Your task to perform on an android device: delete a single message in the gmail app Image 0: 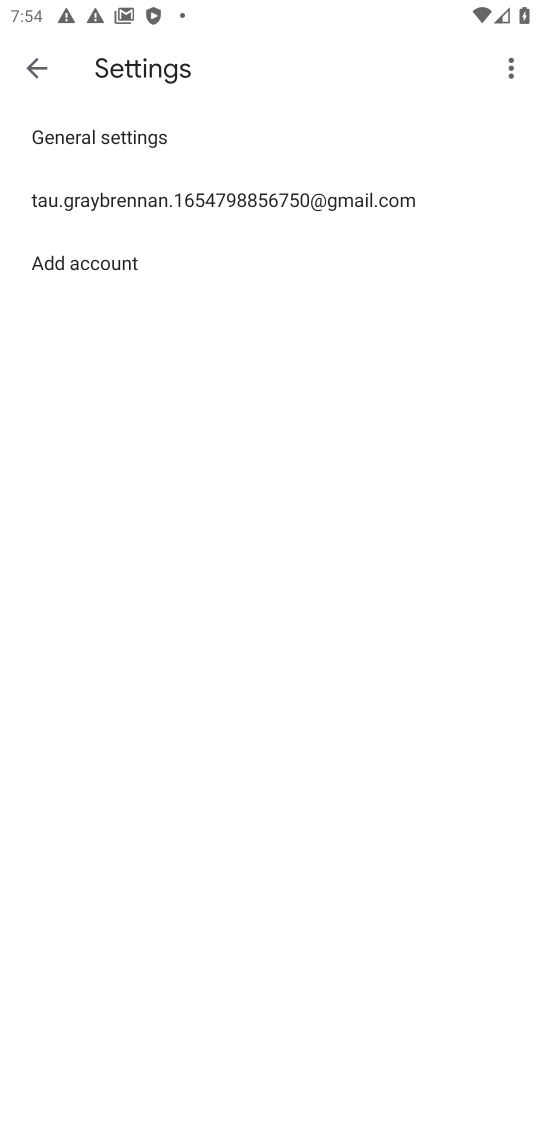
Step 0: click (20, 51)
Your task to perform on an android device: delete a single message in the gmail app Image 1: 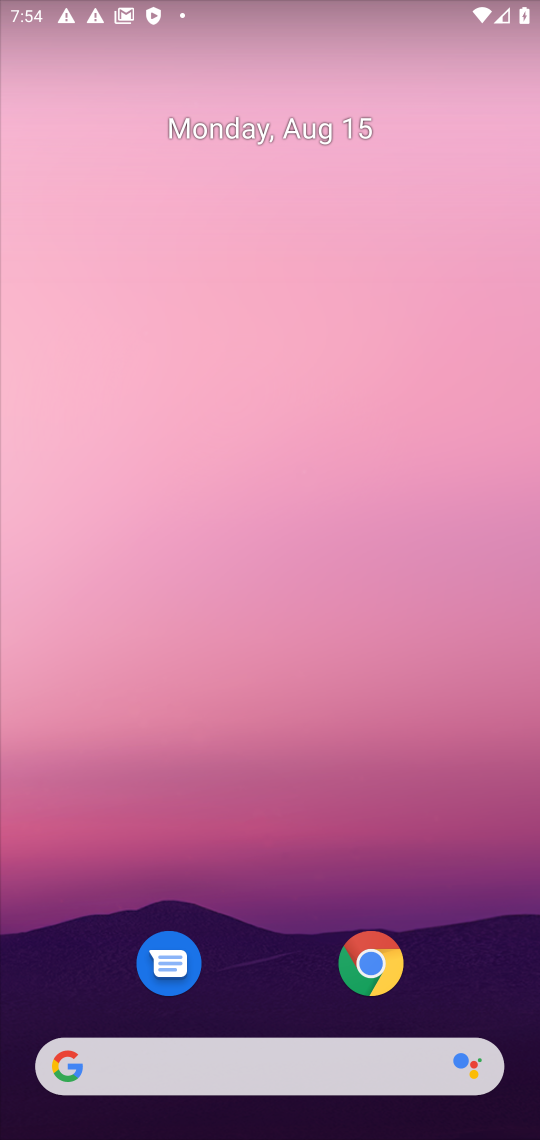
Step 1: drag from (264, 983) to (175, 140)
Your task to perform on an android device: delete a single message in the gmail app Image 2: 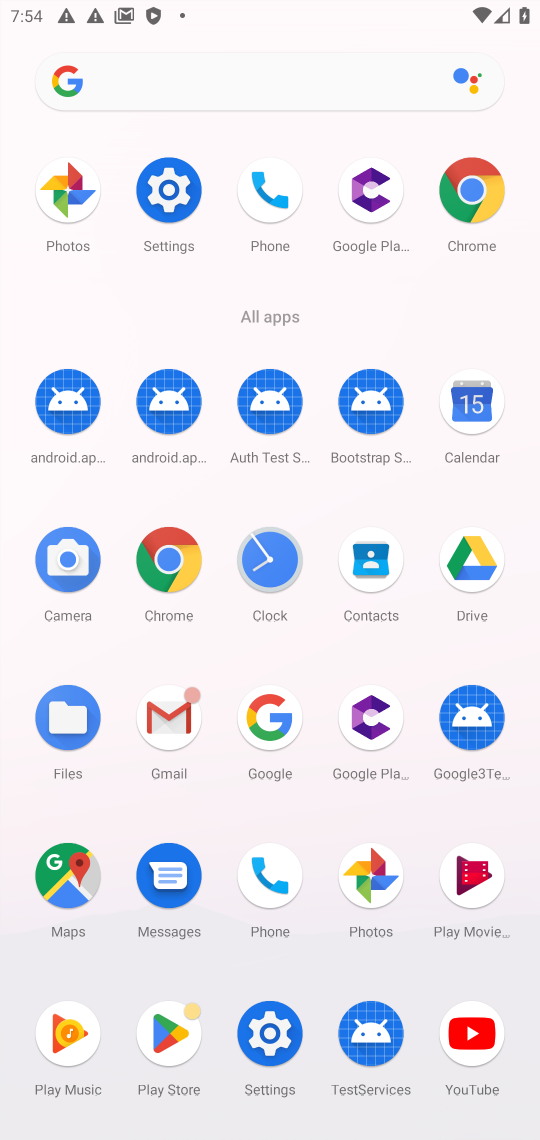
Step 2: click (193, 725)
Your task to perform on an android device: delete a single message in the gmail app Image 3: 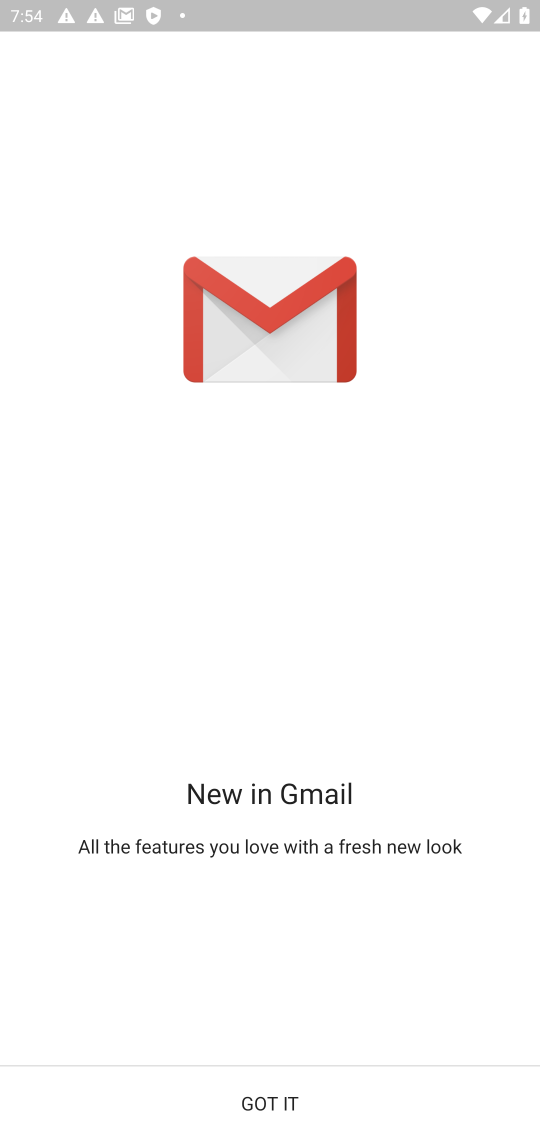
Step 3: click (349, 1086)
Your task to perform on an android device: delete a single message in the gmail app Image 4: 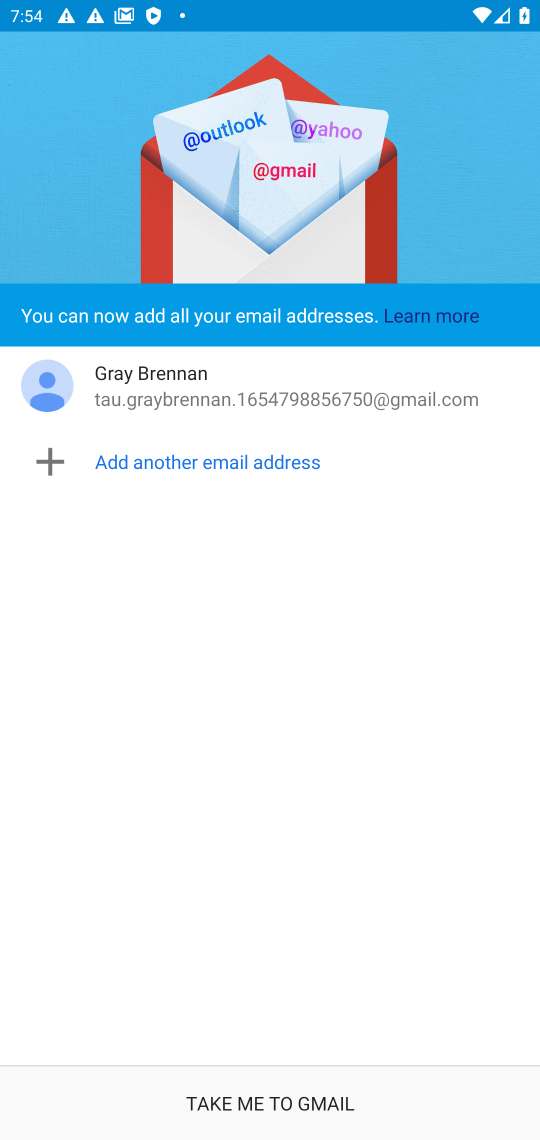
Step 4: click (195, 1103)
Your task to perform on an android device: delete a single message in the gmail app Image 5: 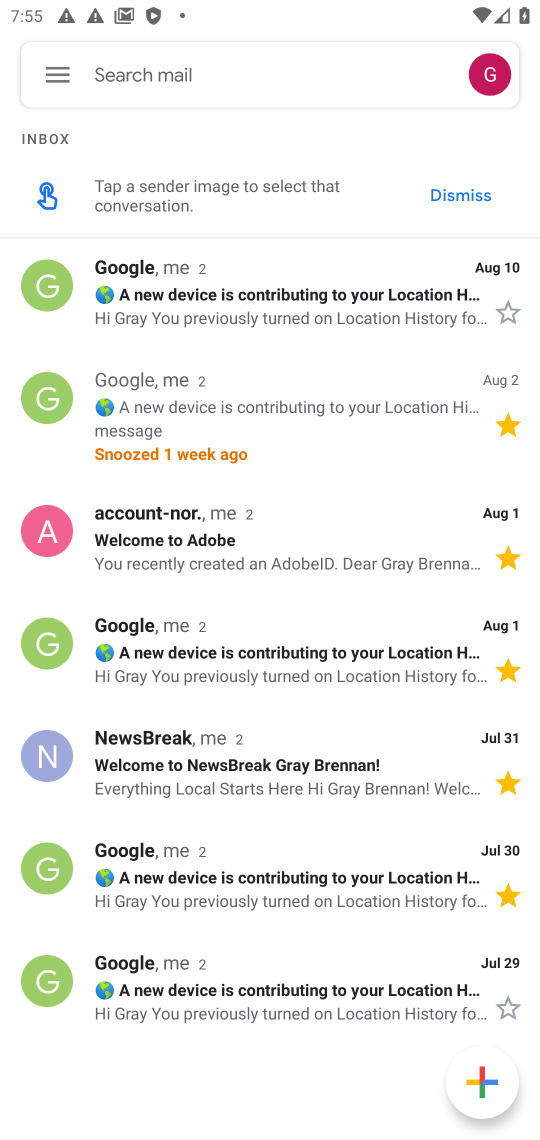
Step 5: click (56, 868)
Your task to perform on an android device: delete a single message in the gmail app Image 6: 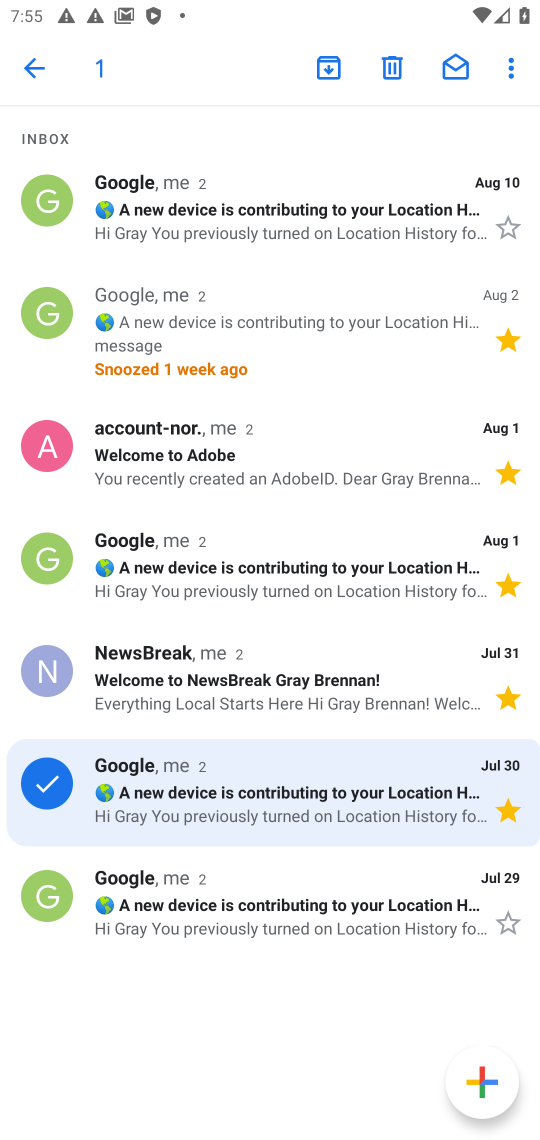
Step 6: click (378, 74)
Your task to perform on an android device: delete a single message in the gmail app Image 7: 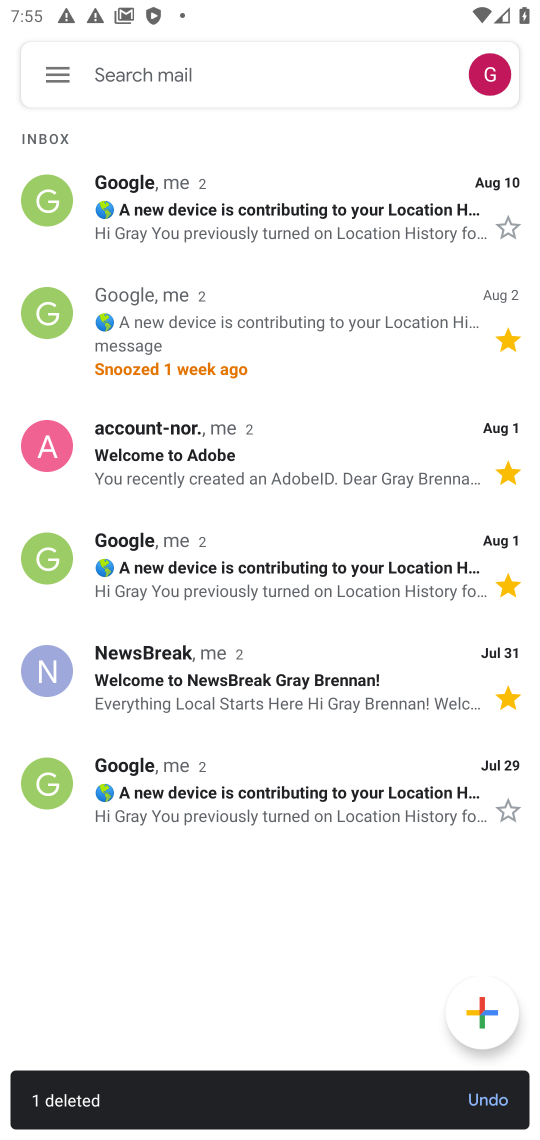
Step 7: task complete